Your task to perform on an android device: open chrome and create a bookmark for the current page Image 0: 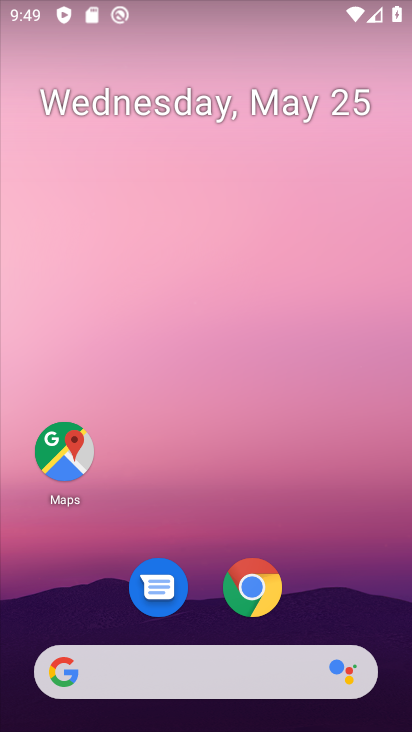
Step 0: click (259, 584)
Your task to perform on an android device: open chrome and create a bookmark for the current page Image 1: 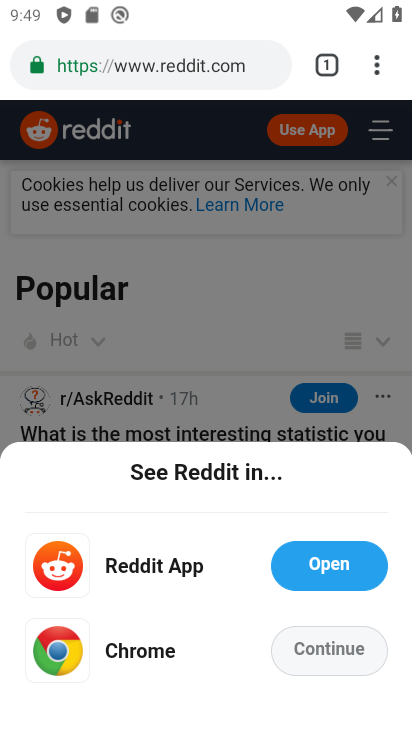
Step 1: click (375, 58)
Your task to perform on an android device: open chrome and create a bookmark for the current page Image 2: 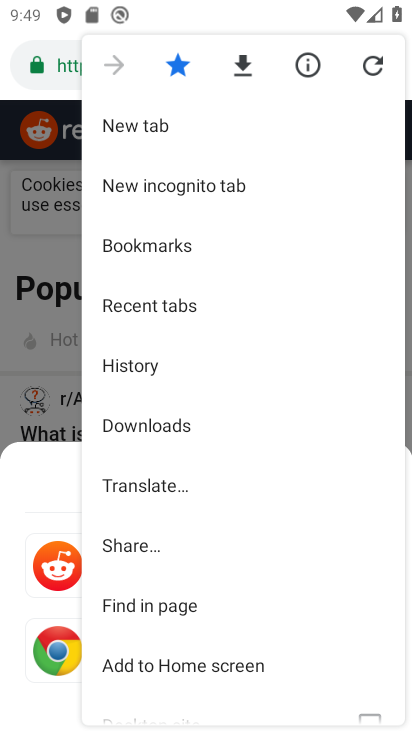
Step 2: task complete